Your task to perform on an android device: add a contact Image 0: 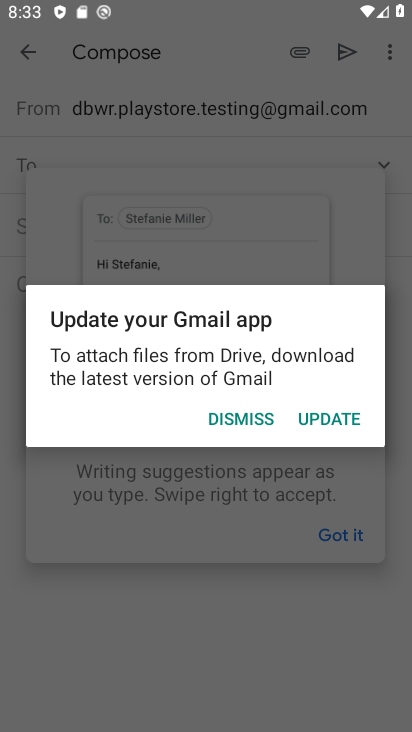
Step 0: press home button
Your task to perform on an android device: add a contact Image 1: 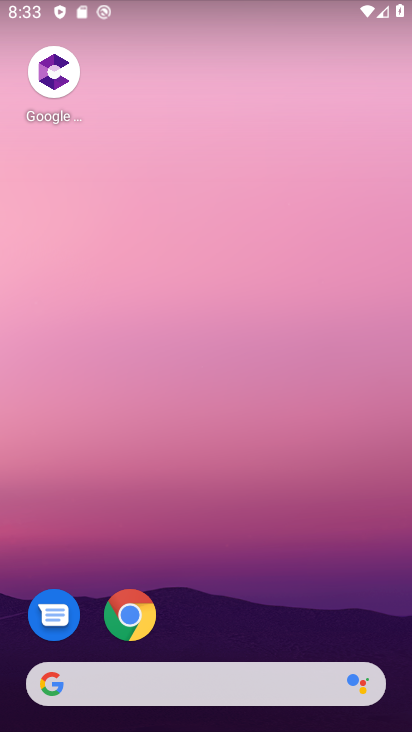
Step 1: drag from (232, 416) to (308, 114)
Your task to perform on an android device: add a contact Image 2: 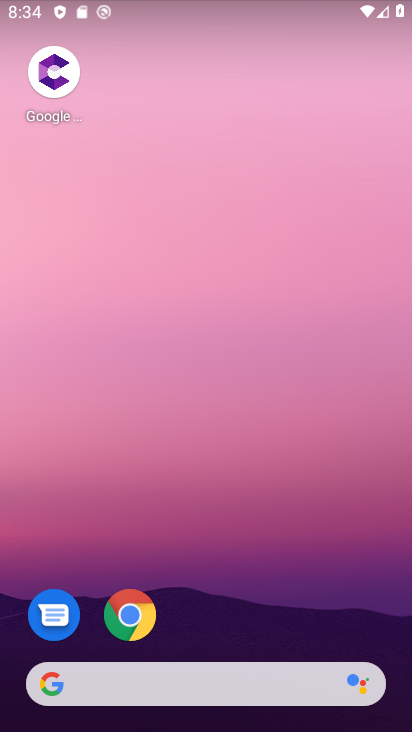
Step 2: drag from (207, 554) to (367, 182)
Your task to perform on an android device: add a contact Image 3: 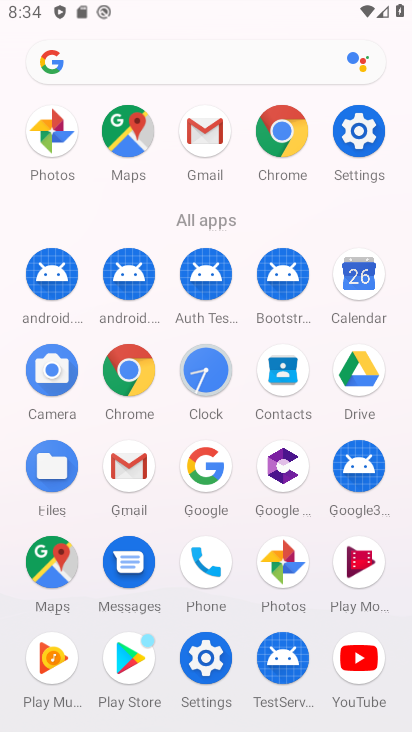
Step 3: click (294, 372)
Your task to perform on an android device: add a contact Image 4: 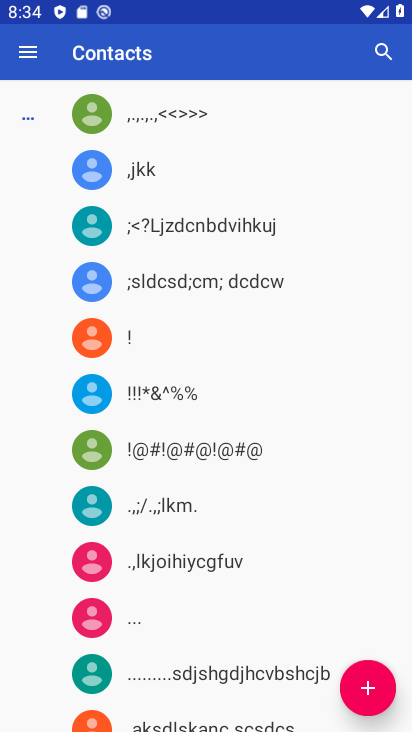
Step 4: click (365, 705)
Your task to perform on an android device: add a contact Image 5: 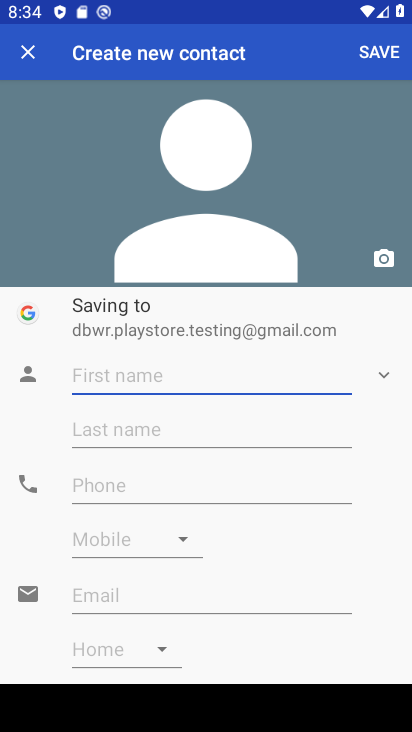
Step 5: type "ygyghhj"
Your task to perform on an android device: add a contact Image 6: 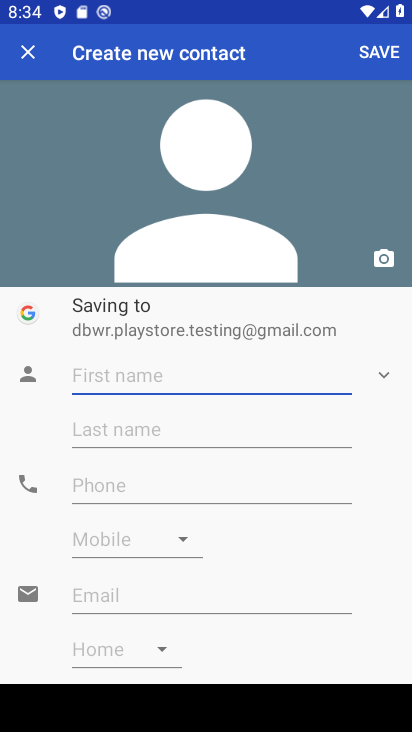
Step 6: click (233, 419)
Your task to perform on an android device: add a contact Image 7: 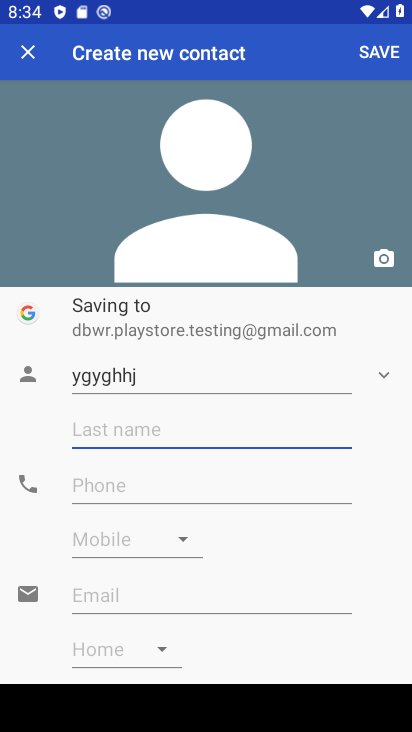
Step 7: type "gchhhj"
Your task to perform on an android device: add a contact Image 8: 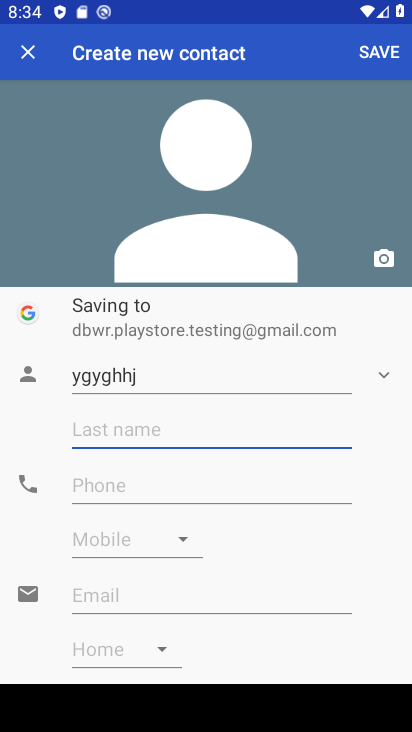
Step 8: click (145, 473)
Your task to perform on an android device: add a contact Image 9: 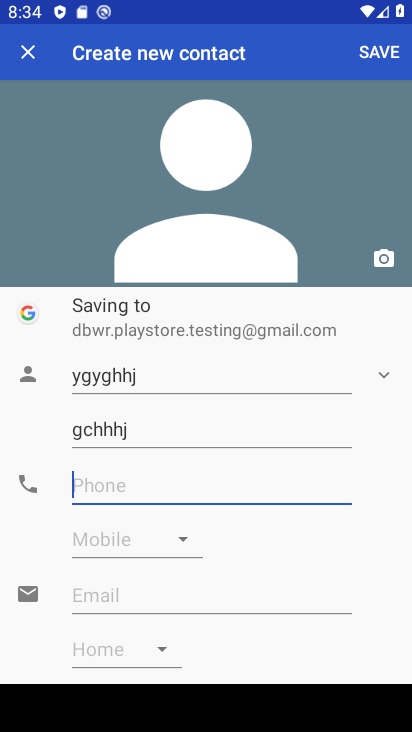
Step 9: type "6r66789"
Your task to perform on an android device: add a contact Image 10: 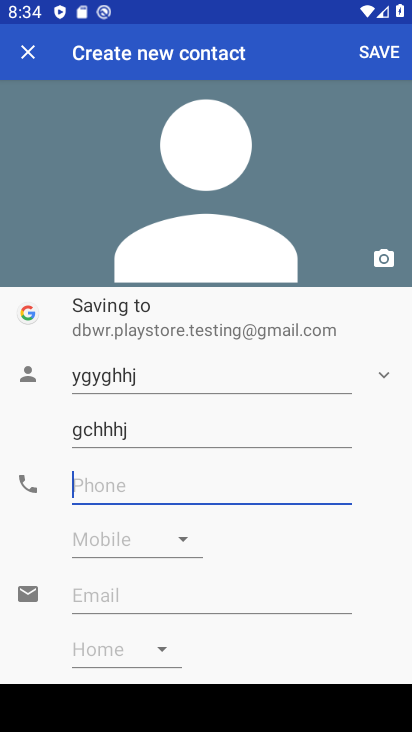
Step 10: click (129, 531)
Your task to perform on an android device: add a contact Image 11: 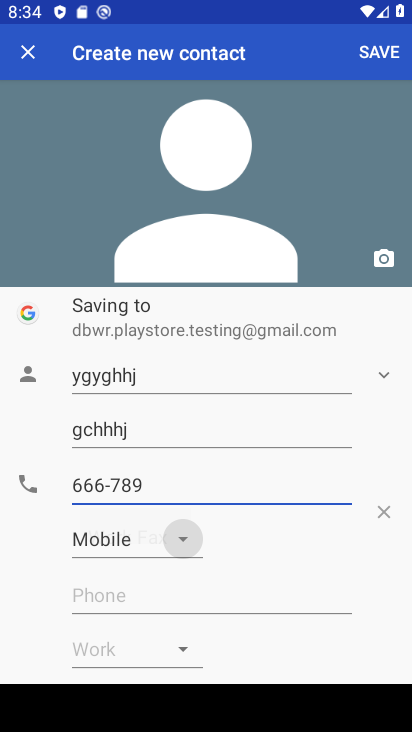
Step 11: click (393, 43)
Your task to perform on an android device: add a contact Image 12: 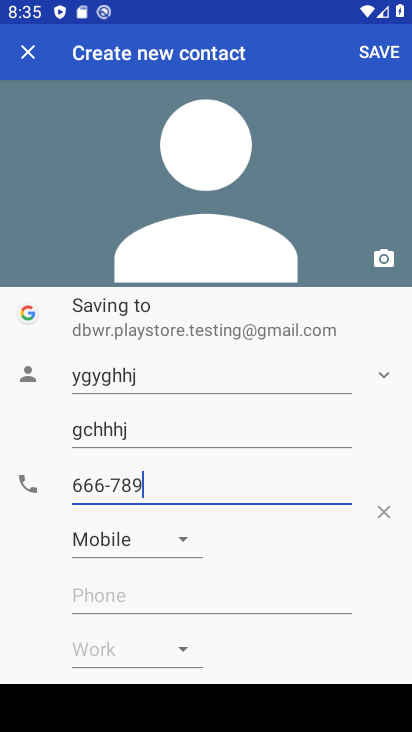
Step 12: click (381, 53)
Your task to perform on an android device: add a contact Image 13: 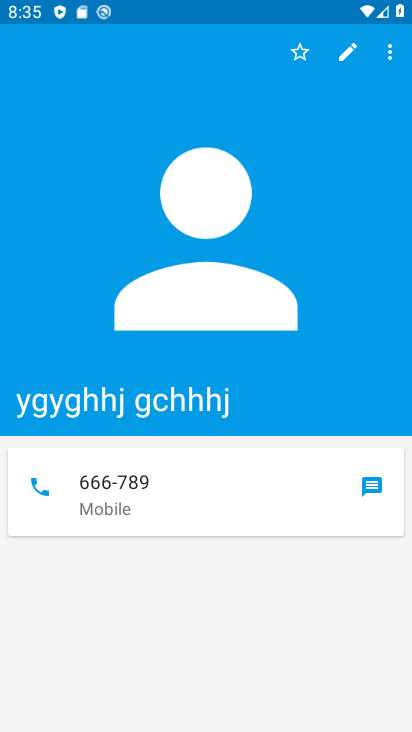
Step 13: task complete